Your task to perform on an android device: open app "Messages" (install if not already installed) Image 0: 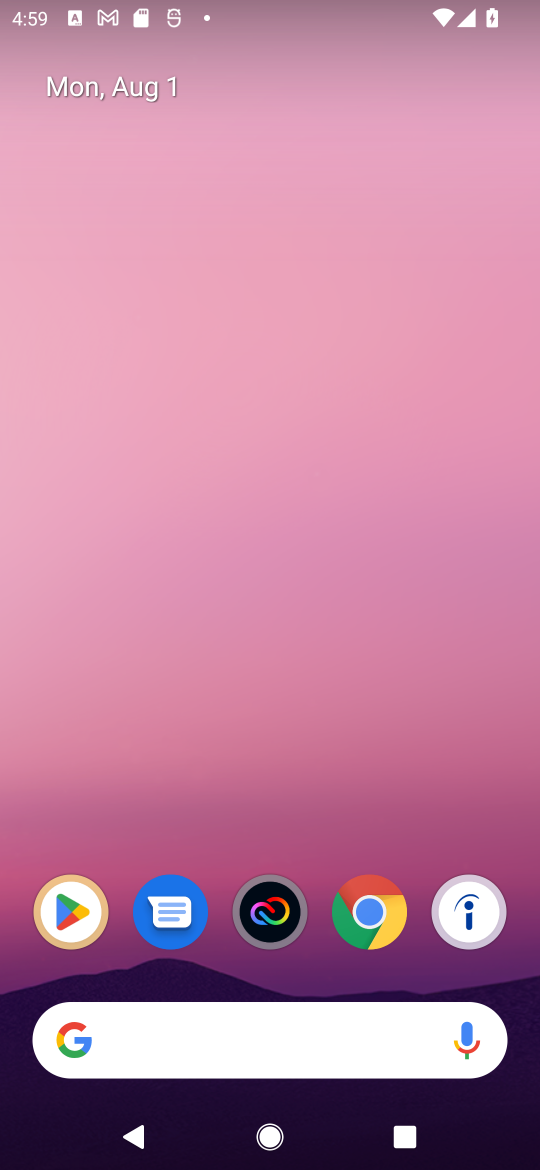
Step 0: click (90, 922)
Your task to perform on an android device: open app "Messages" (install if not already installed) Image 1: 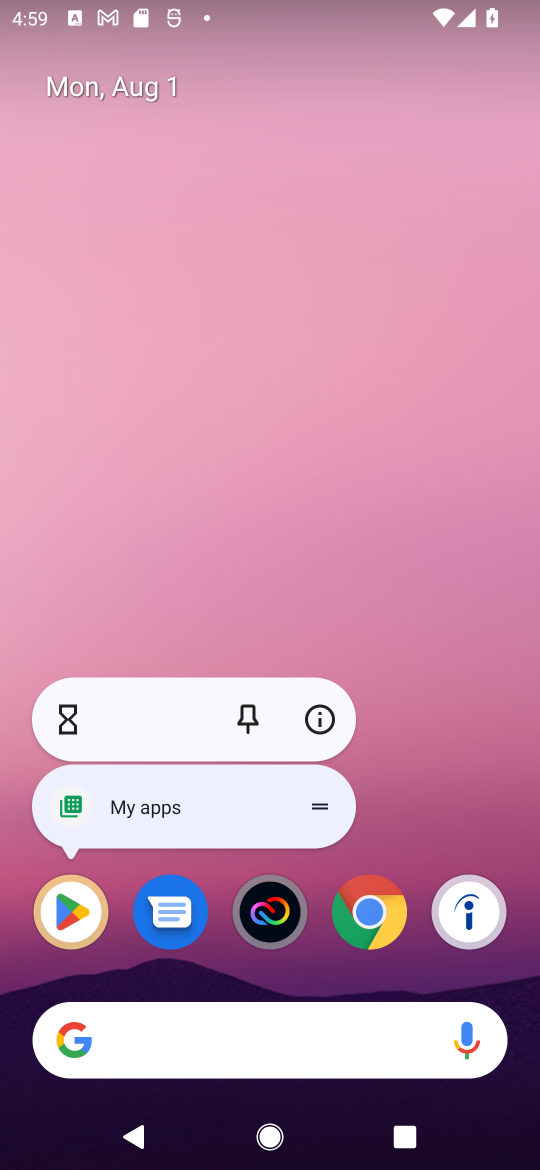
Step 1: click (54, 925)
Your task to perform on an android device: open app "Messages" (install if not already installed) Image 2: 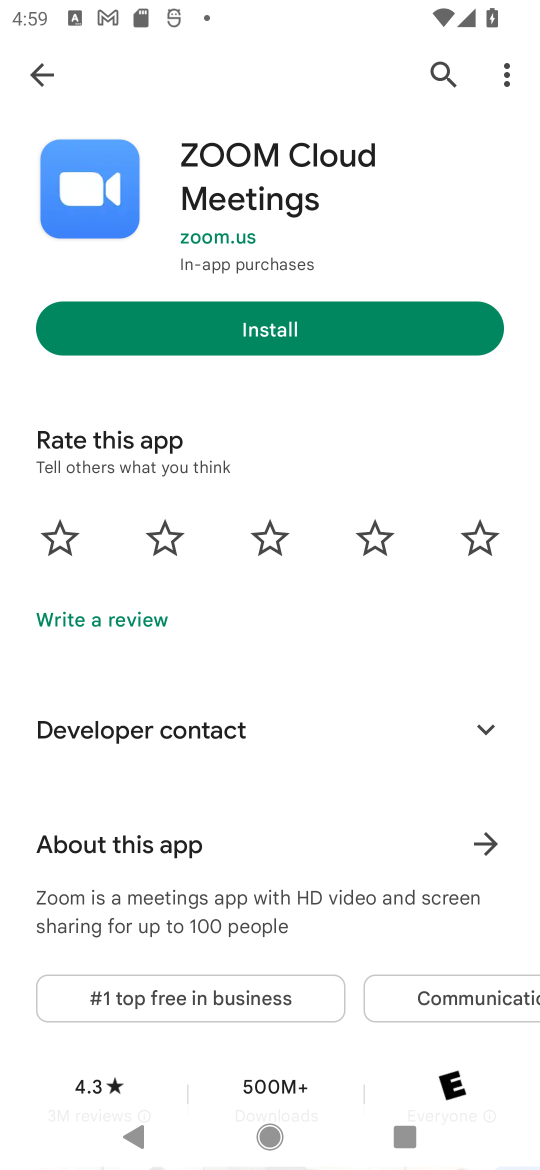
Step 2: click (446, 58)
Your task to perform on an android device: open app "Messages" (install if not already installed) Image 3: 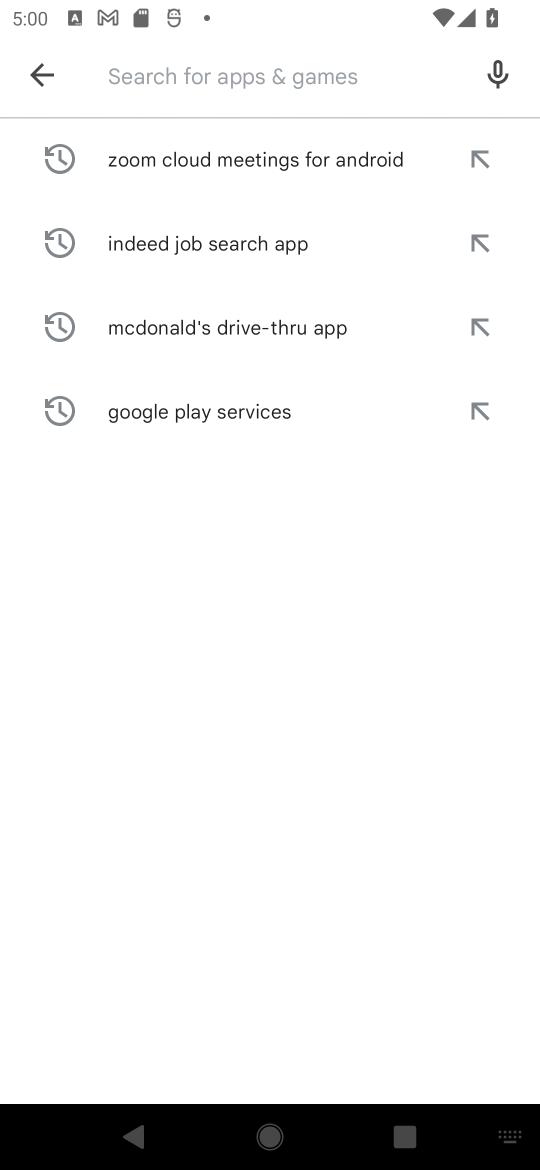
Step 3: type "Messages"
Your task to perform on an android device: open app "Messages" (install if not already installed) Image 4: 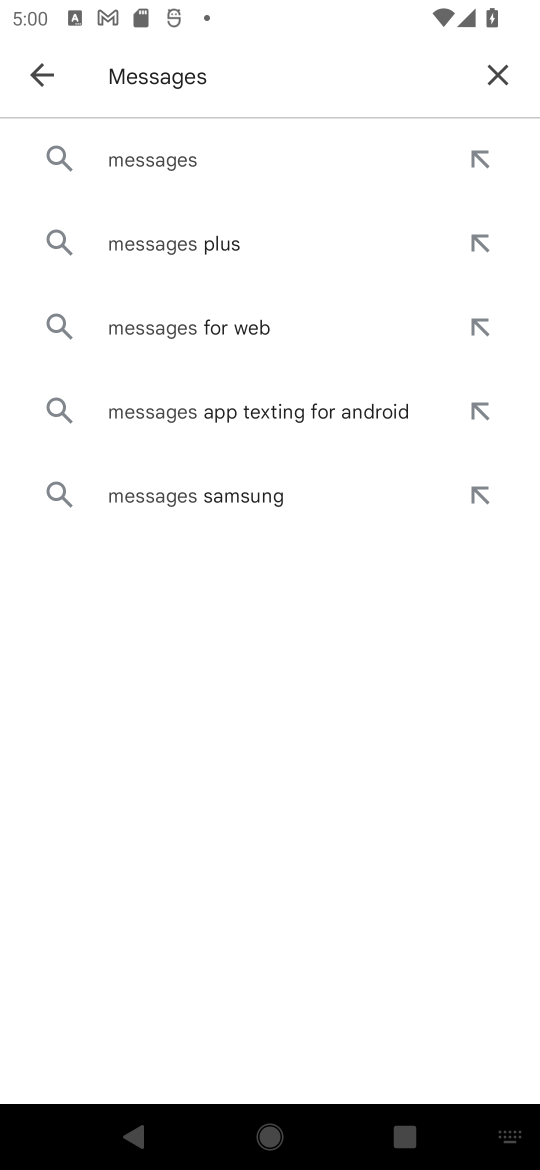
Step 4: click (134, 167)
Your task to perform on an android device: open app "Messages" (install if not already installed) Image 5: 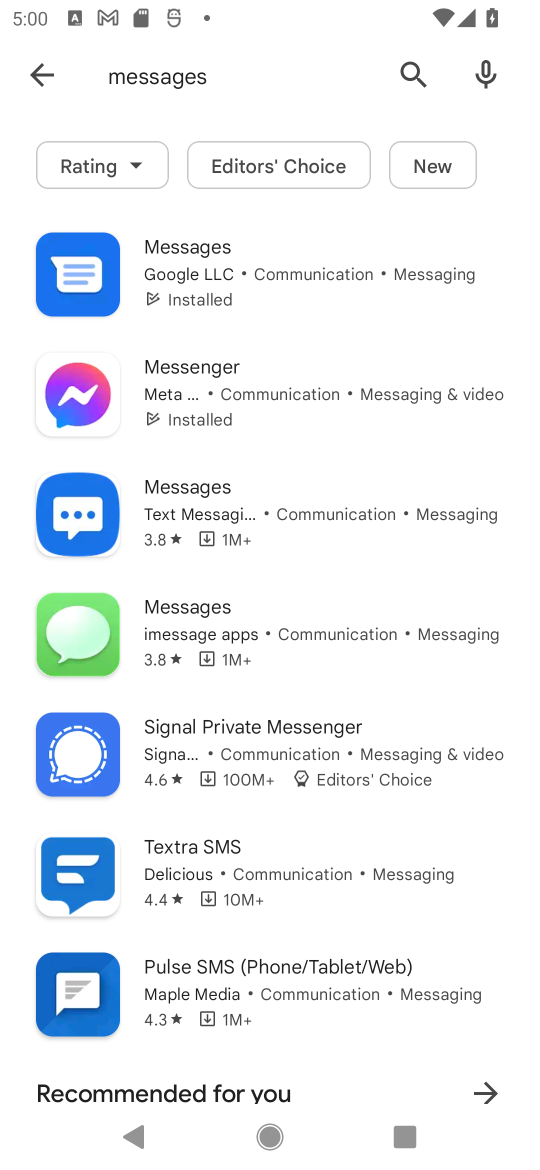
Step 5: click (176, 286)
Your task to perform on an android device: open app "Messages" (install if not already installed) Image 6: 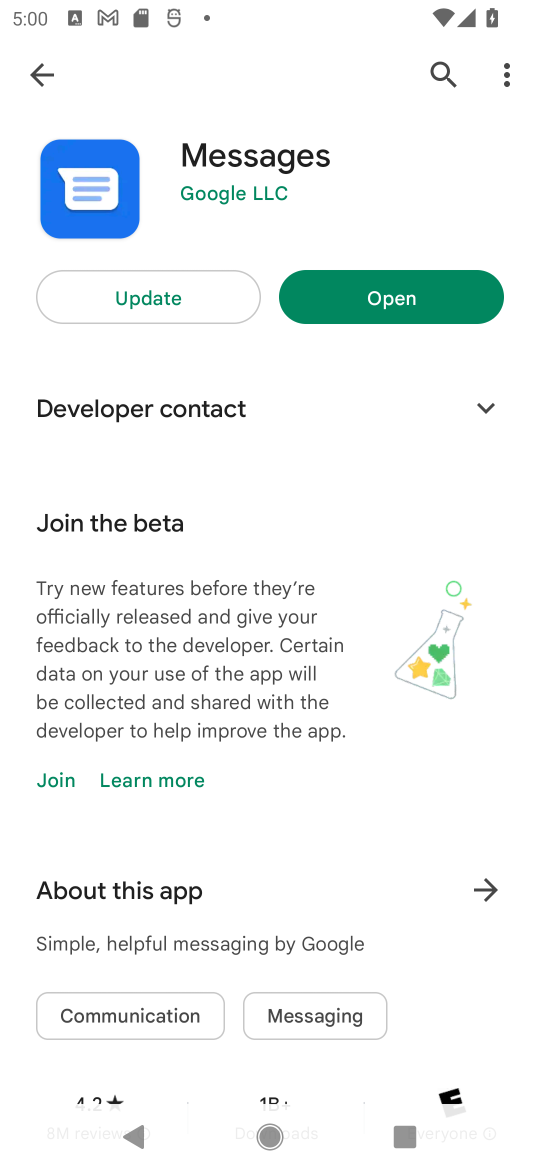
Step 6: click (362, 297)
Your task to perform on an android device: open app "Messages" (install if not already installed) Image 7: 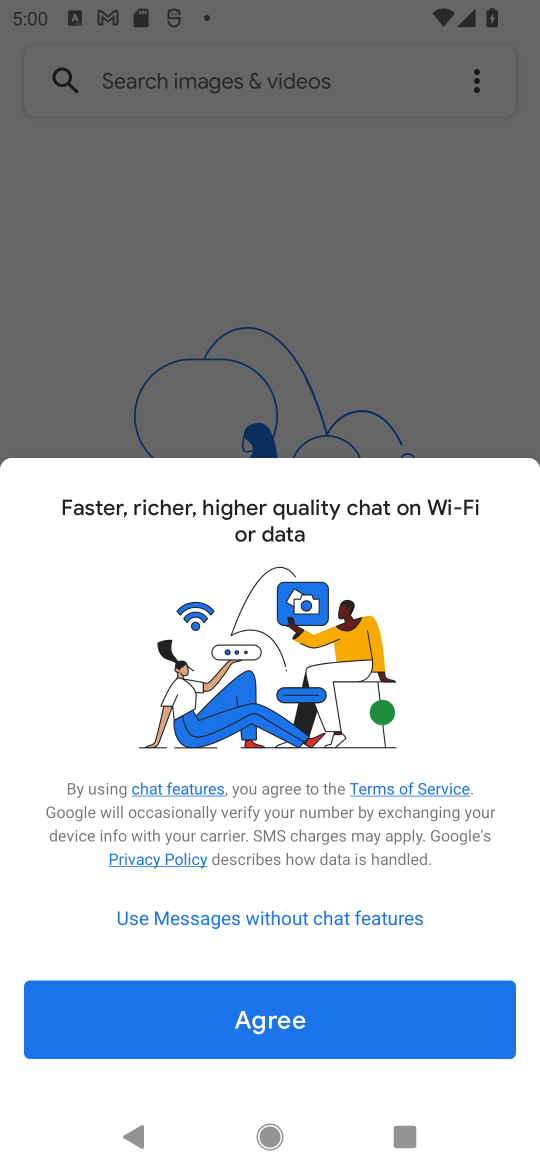
Step 7: task complete